Your task to perform on an android device: Go to Reddit.com Image 0: 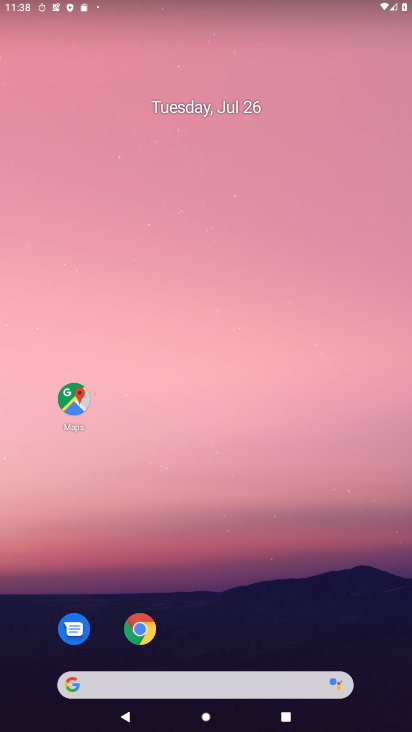
Step 0: drag from (360, 609) to (146, 20)
Your task to perform on an android device: Go to Reddit.com Image 1: 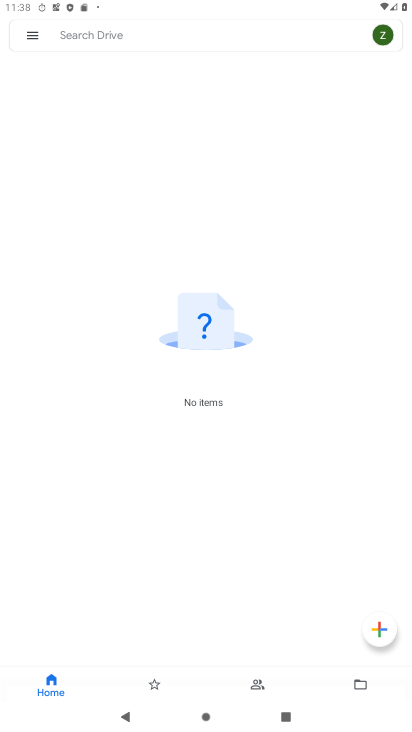
Step 1: press home button
Your task to perform on an android device: Go to Reddit.com Image 2: 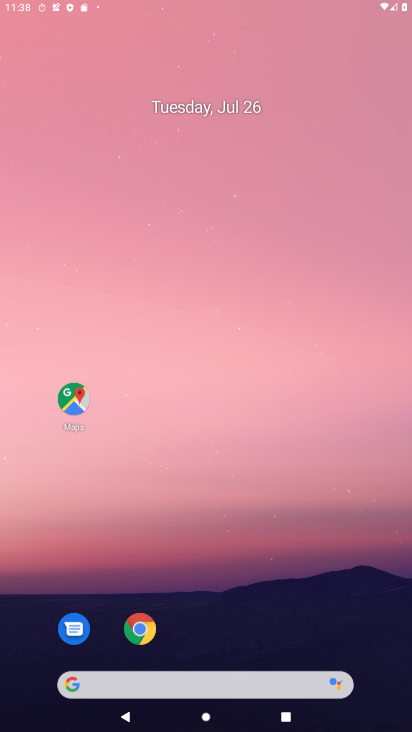
Step 2: drag from (341, 638) to (78, 56)
Your task to perform on an android device: Go to Reddit.com Image 3: 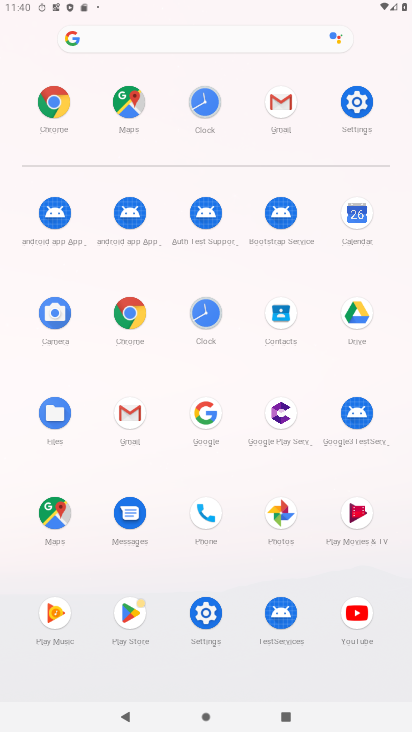
Step 3: click (210, 414)
Your task to perform on an android device: Go to Reddit.com Image 4: 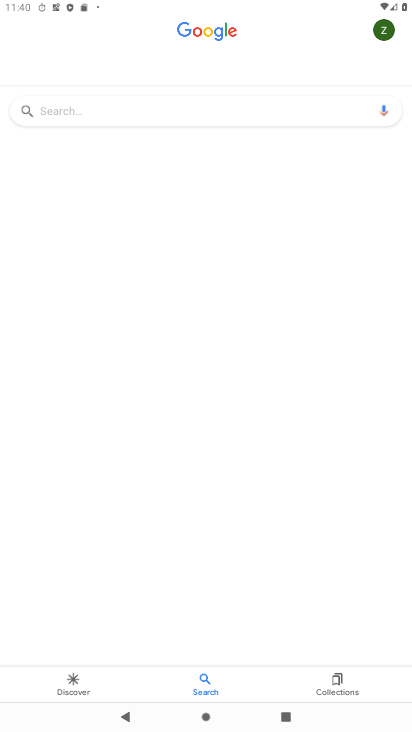
Step 4: click (135, 112)
Your task to perform on an android device: Go to Reddit.com Image 5: 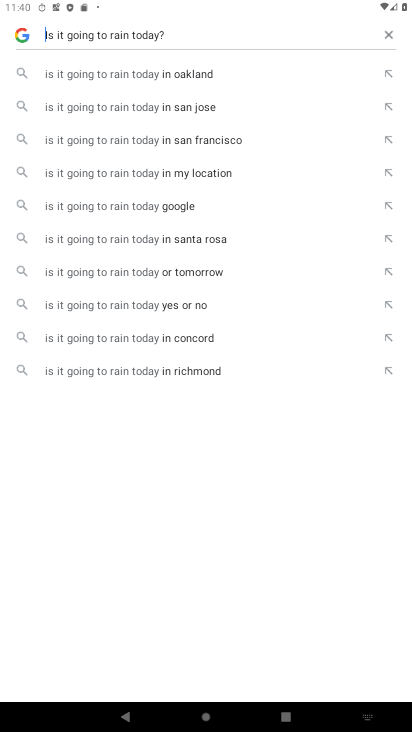
Step 5: click (386, 34)
Your task to perform on an android device: Go to Reddit.com Image 6: 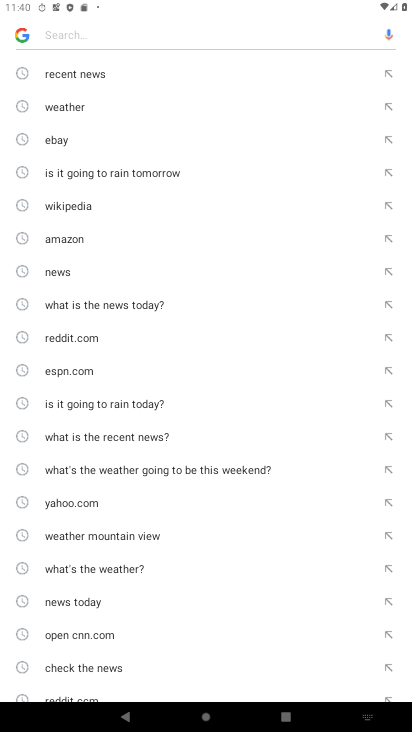
Step 6: type "Reddit.com"
Your task to perform on an android device: Go to Reddit.com Image 7: 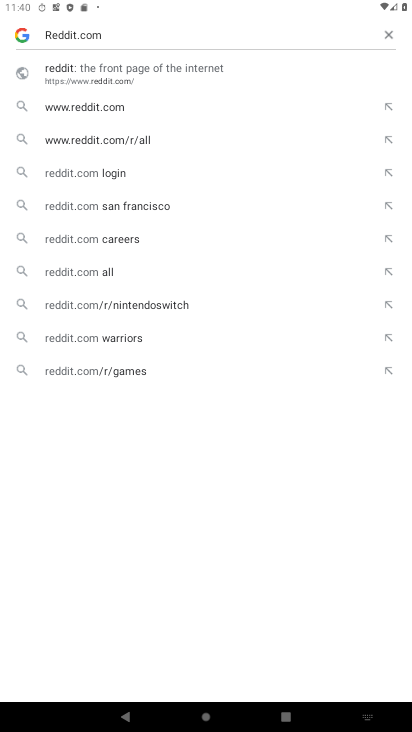
Step 7: click (102, 83)
Your task to perform on an android device: Go to Reddit.com Image 8: 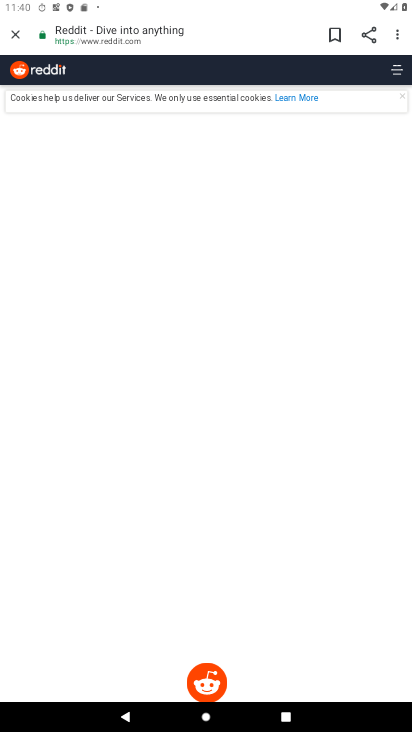
Step 8: task complete